Your task to perform on an android device: change the clock display to digital Image 0: 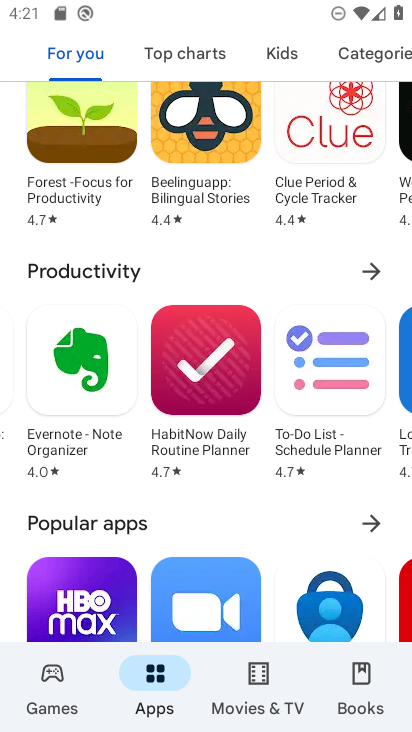
Step 0: press home button
Your task to perform on an android device: change the clock display to digital Image 1: 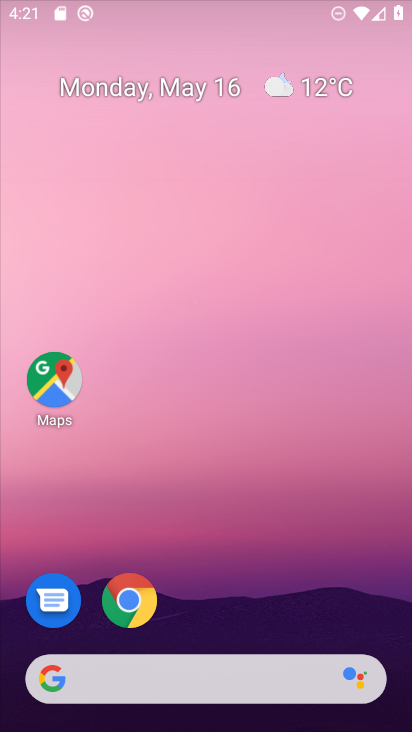
Step 1: drag from (374, 505) to (367, 4)
Your task to perform on an android device: change the clock display to digital Image 2: 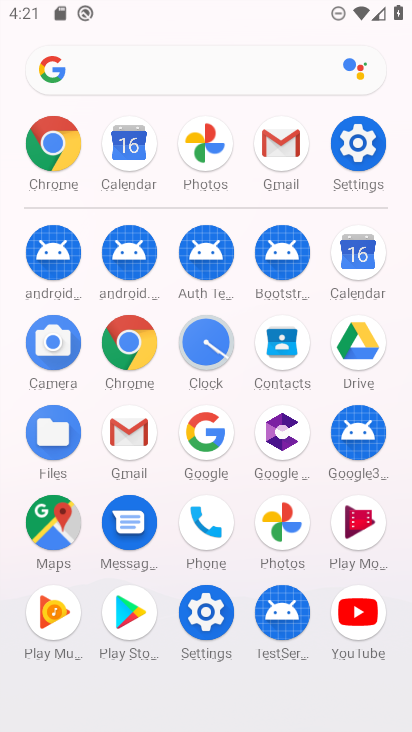
Step 2: click (205, 364)
Your task to perform on an android device: change the clock display to digital Image 3: 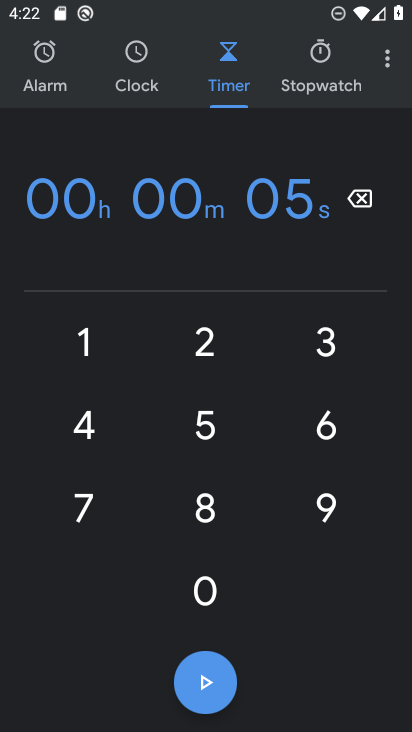
Step 3: click (391, 61)
Your task to perform on an android device: change the clock display to digital Image 4: 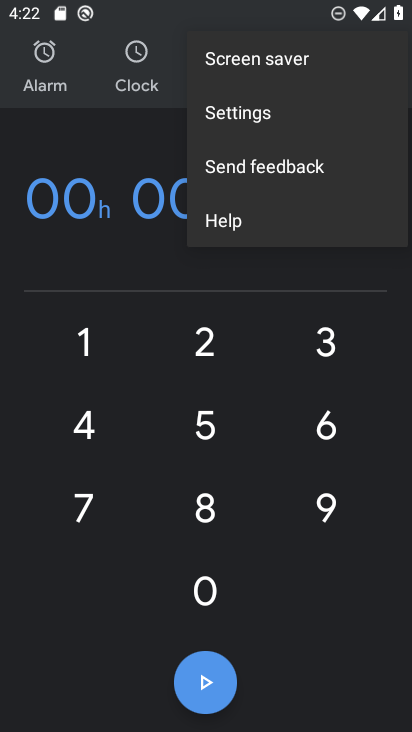
Step 4: click (270, 114)
Your task to perform on an android device: change the clock display to digital Image 5: 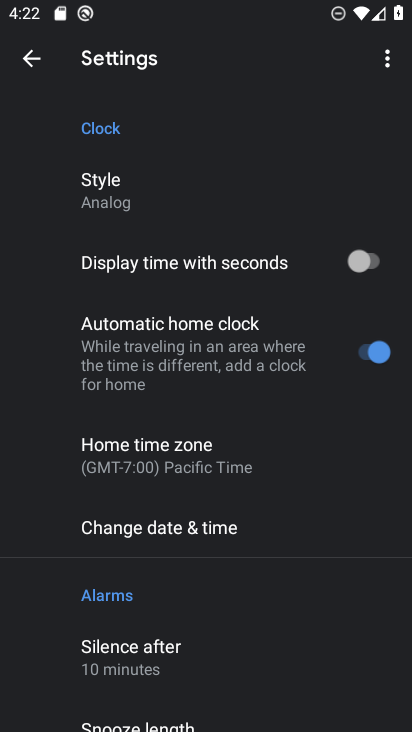
Step 5: click (129, 191)
Your task to perform on an android device: change the clock display to digital Image 6: 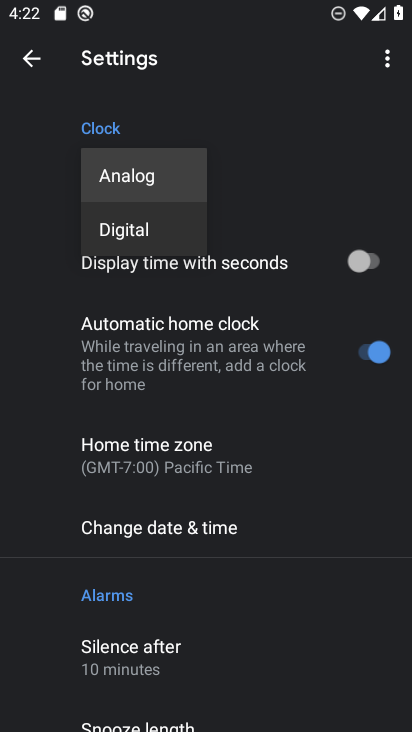
Step 6: click (148, 241)
Your task to perform on an android device: change the clock display to digital Image 7: 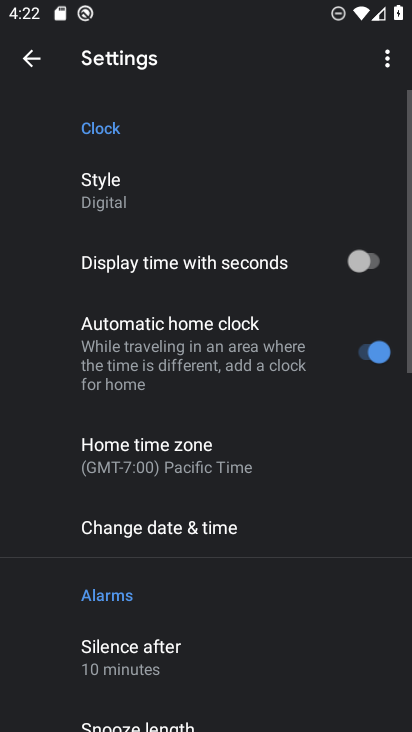
Step 7: task complete